Your task to perform on an android device: snooze an email in the gmail app Image 0: 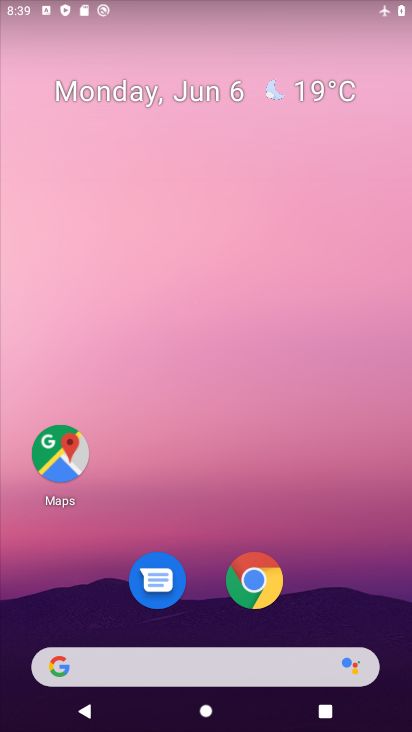
Step 0: drag from (289, 632) to (309, 146)
Your task to perform on an android device: snooze an email in the gmail app Image 1: 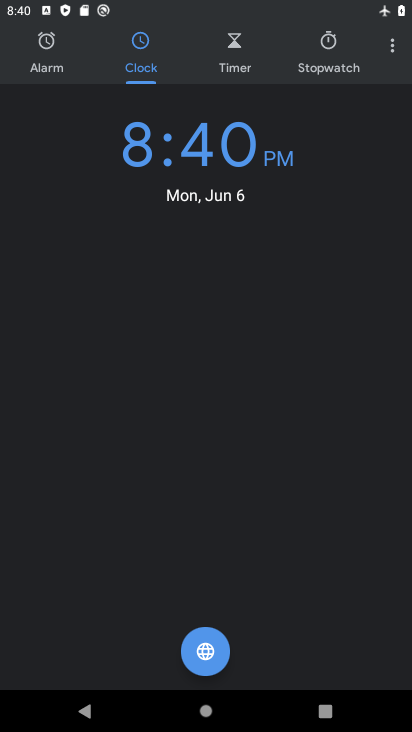
Step 1: press home button
Your task to perform on an android device: snooze an email in the gmail app Image 2: 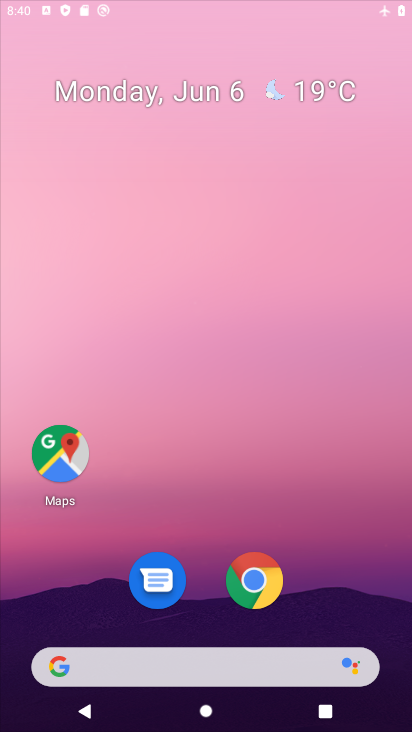
Step 2: drag from (301, 713) to (382, 222)
Your task to perform on an android device: snooze an email in the gmail app Image 3: 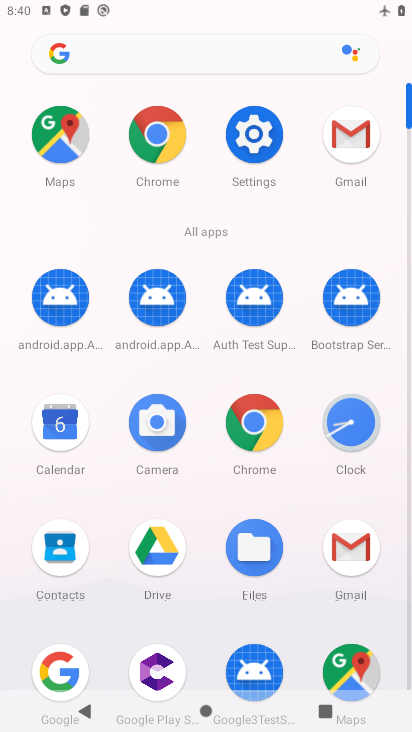
Step 3: click (359, 560)
Your task to perform on an android device: snooze an email in the gmail app Image 4: 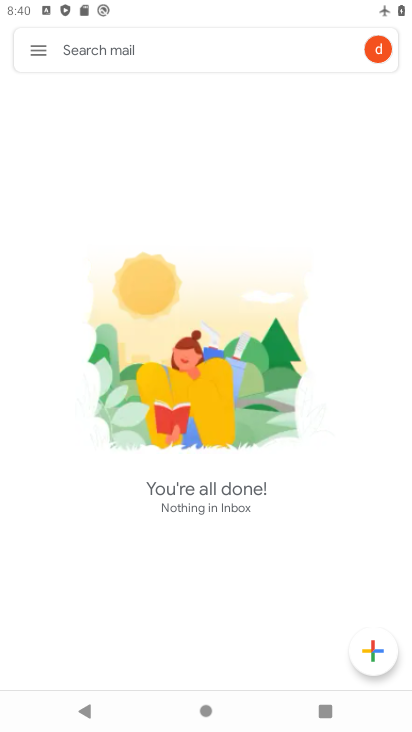
Step 4: click (41, 46)
Your task to perform on an android device: snooze an email in the gmail app Image 5: 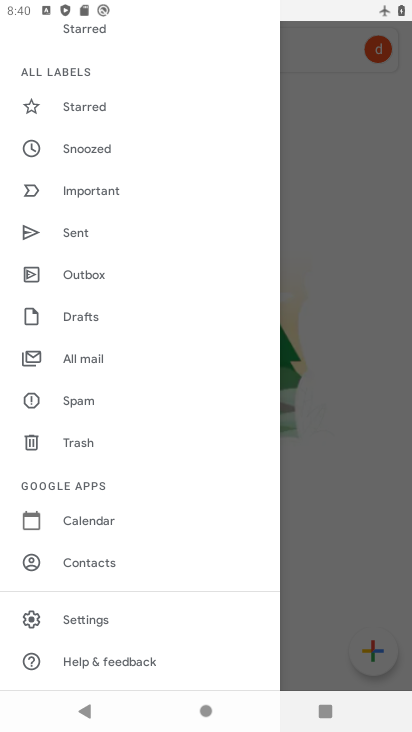
Step 5: click (97, 147)
Your task to perform on an android device: snooze an email in the gmail app Image 6: 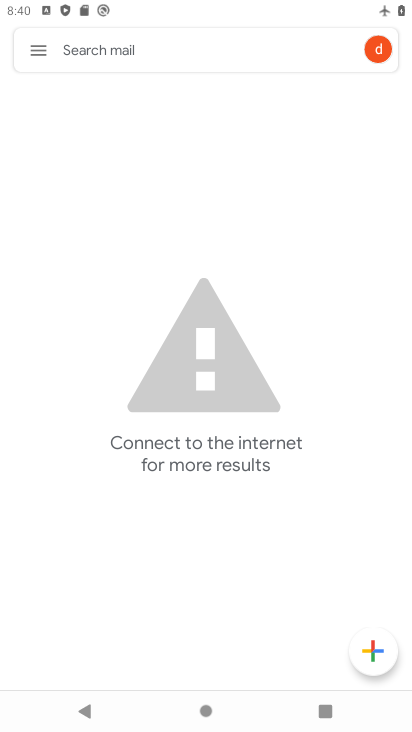
Step 6: task complete